Your task to perform on an android device: Go to Google Image 0: 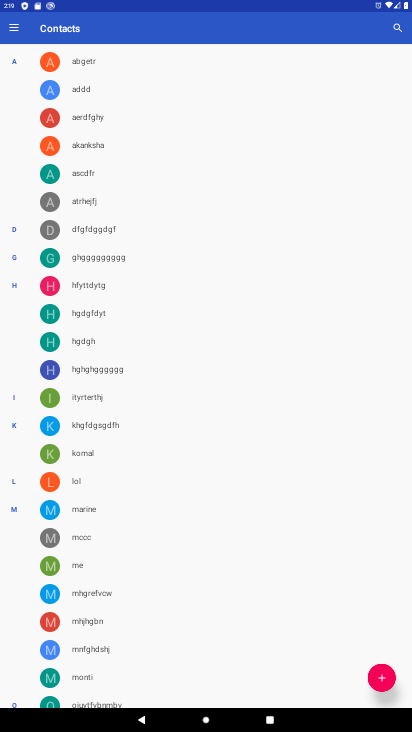
Step 0: press home button
Your task to perform on an android device: Go to Google Image 1: 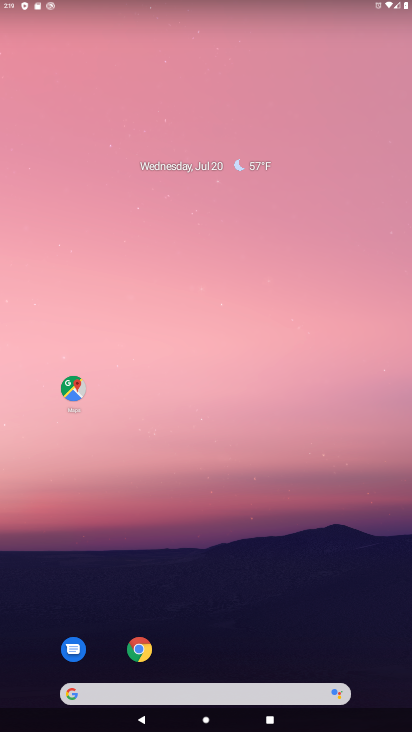
Step 1: click (106, 686)
Your task to perform on an android device: Go to Google Image 2: 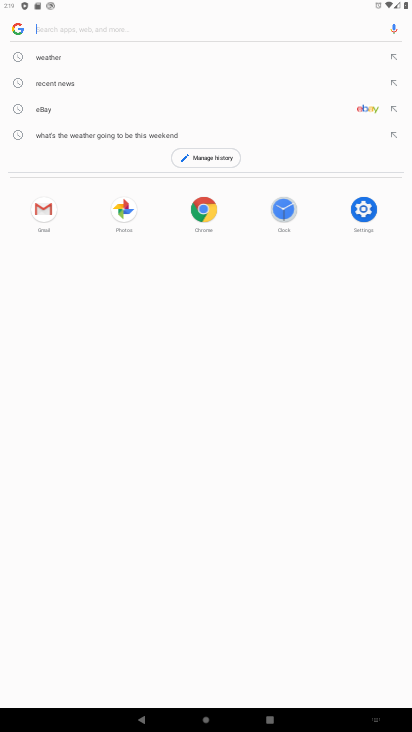
Step 2: task complete